Your task to perform on an android device: set an alarm Image 0: 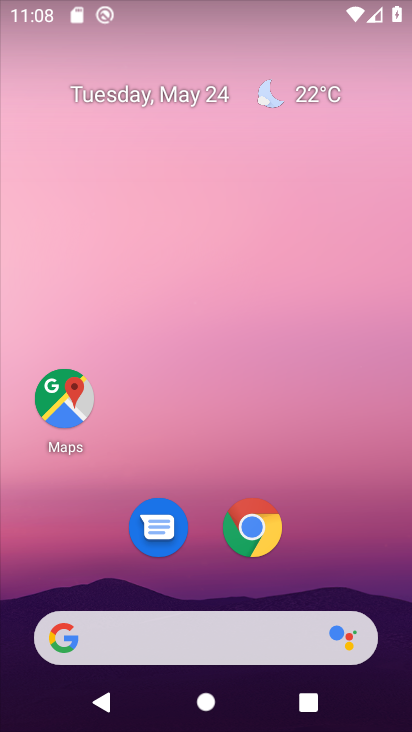
Step 0: press home button
Your task to perform on an android device: set an alarm Image 1: 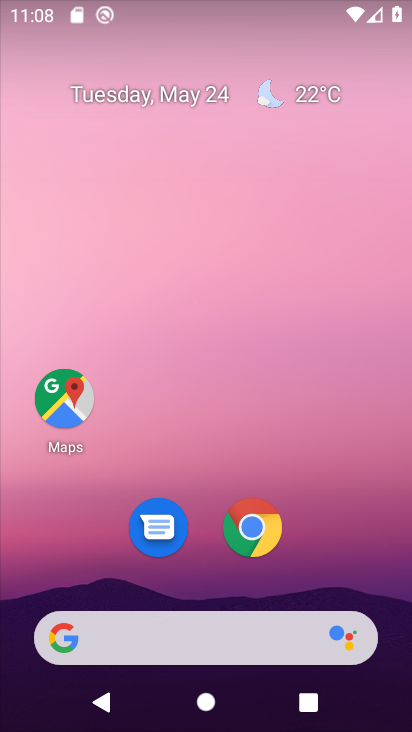
Step 1: drag from (152, 637) to (272, 109)
Your task to perform on an android device: set an alarm Image 2: 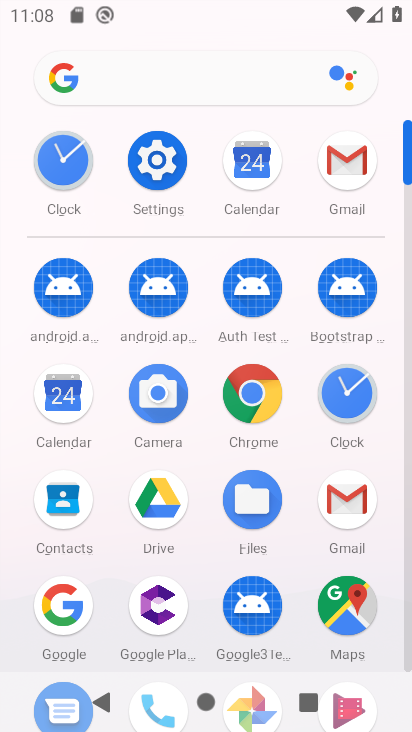
Step 2: click (343, 406)
Your task to perform on an android device: set an alarm Image 3: 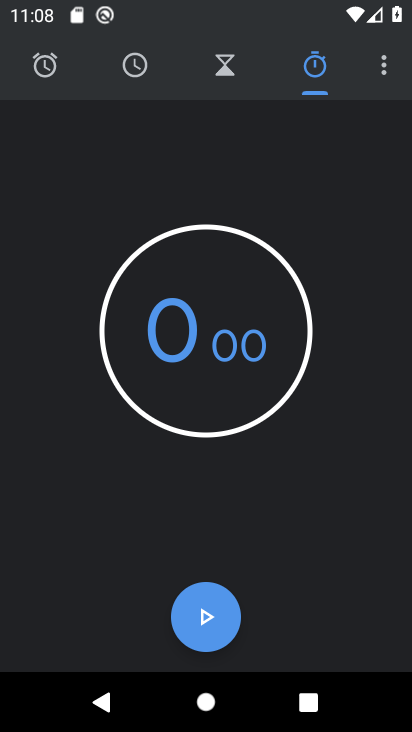
Step 3: click (46, 61)
Your task to perform on an android device: set an alarm Image 4: 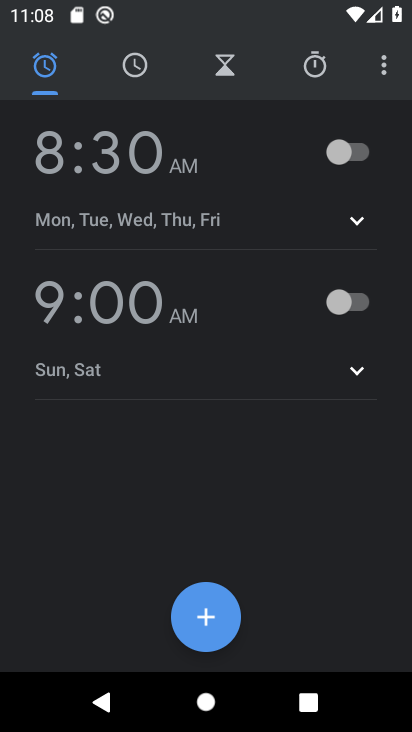
Step 4: click (358, 150)
Your task to perform on an android device: set an alarm Image 5: 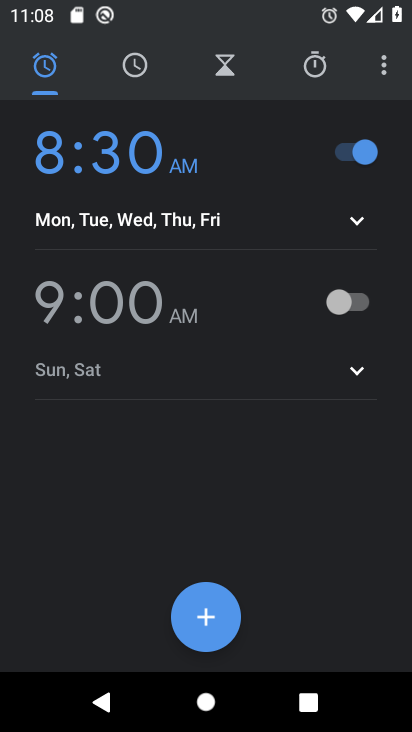
Step 5: task complete